Your task to perform on an android device: turn on sleep mode Image 0: 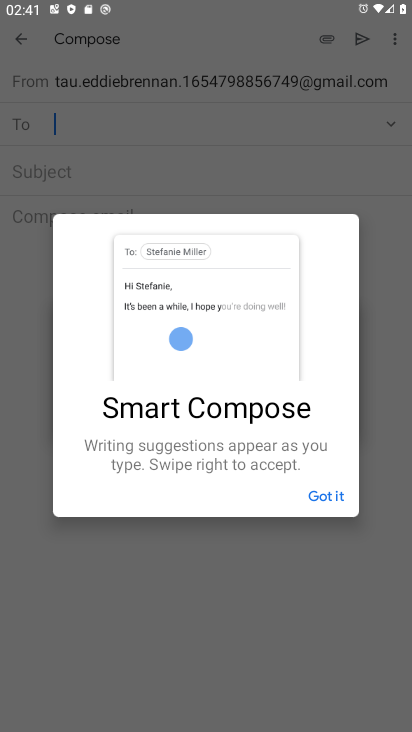
Step 0: press home button
Your task to perform on an android device: turn on sleep mode Image 1: 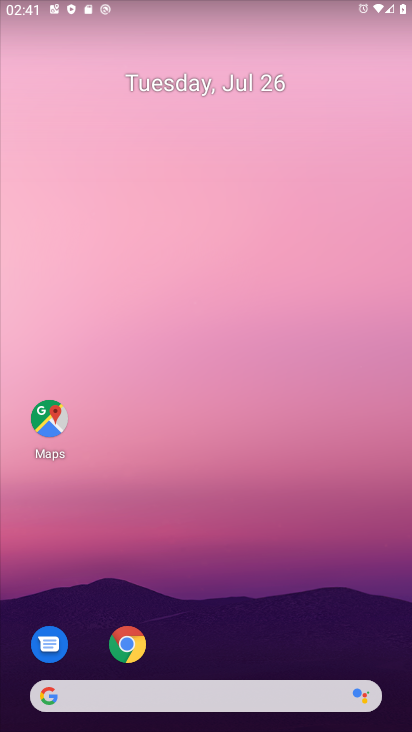
Step 1: drag from (201, 565) to (198, 370)
Your task to perform on an android device: turn on sleep mode Image 2: 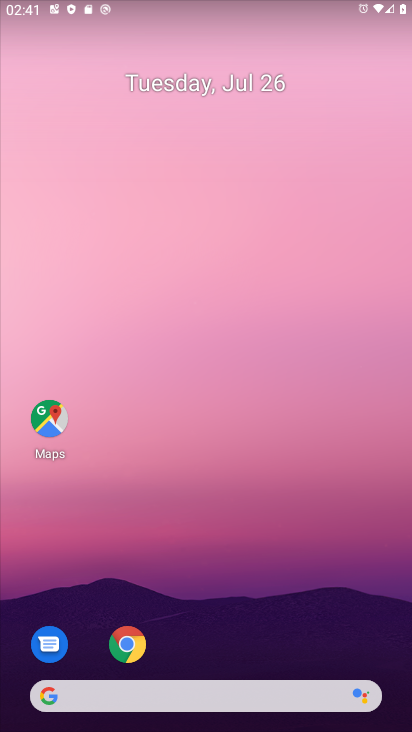
Step 2: drag from (193, 642) to (202, 106)
Your task to perform on an android device: turn on sleep mode Image 3: 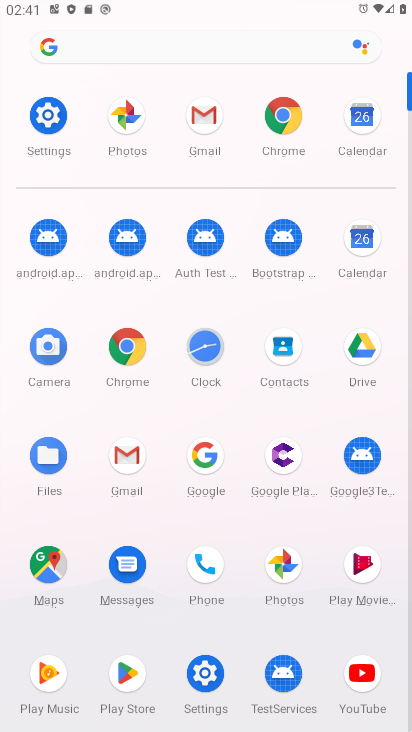
Step 3: click (45, 109)
Your task to perform on an android device: turn on sleep mode Image 4: 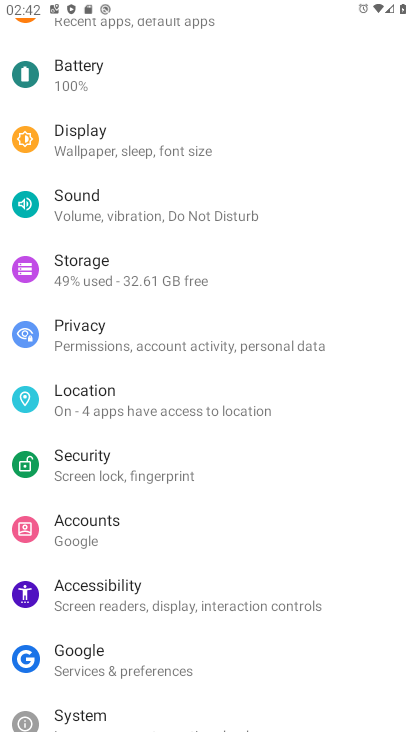
Step 4: task complete